Your task to perform on an android device: Open Youtube and go to the subscriptions tab Image 0: 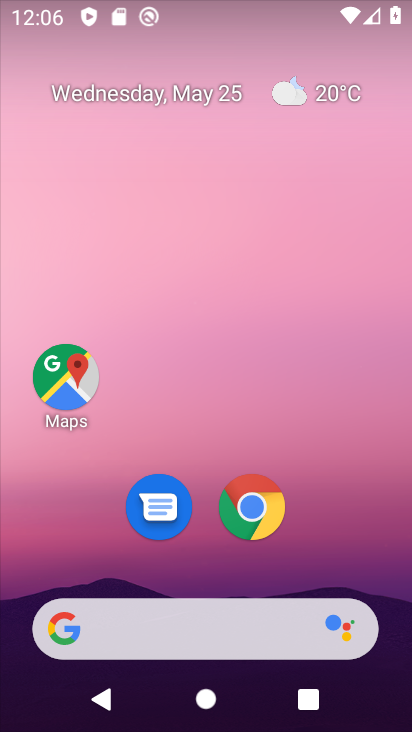
Step 0: drag from (363, 528) to (297, 122)
Your task to perform on an android device: Open Youtube and go to the subscriptions tab Image 1: 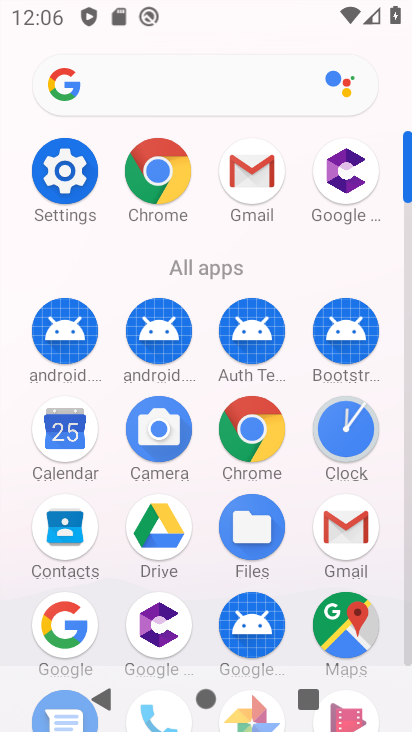
Step 1: drag from (184, 619) to (179, 284)
Your task to perform on an android device: Open Youtube and go to the subscriptions tab Image 2: 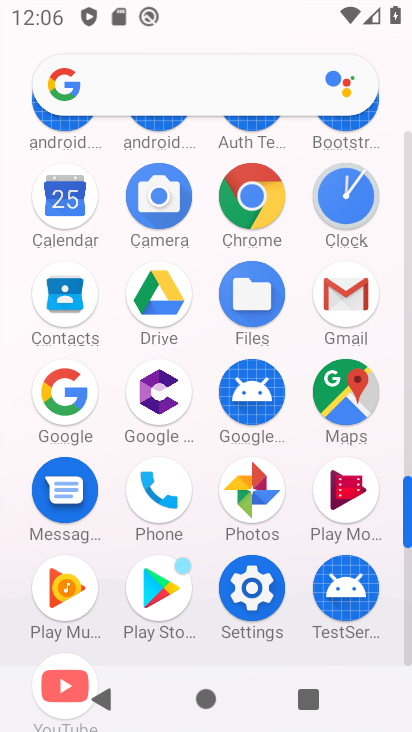
Step 2: drag from (136, 636) to (159, 306)
Your task to perform on an android device: Open Youtube and go to the subscriptions tab Image 3: 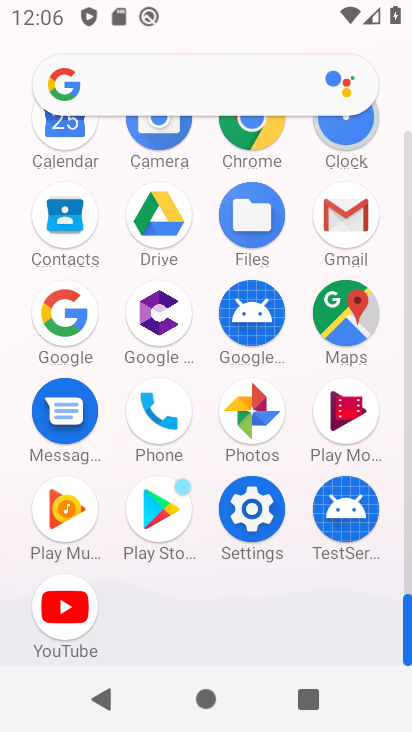
Step 3: click (78, 616)
Your task to perform on an android device: Open Youtube and go to the subscriptions tab Image 4: 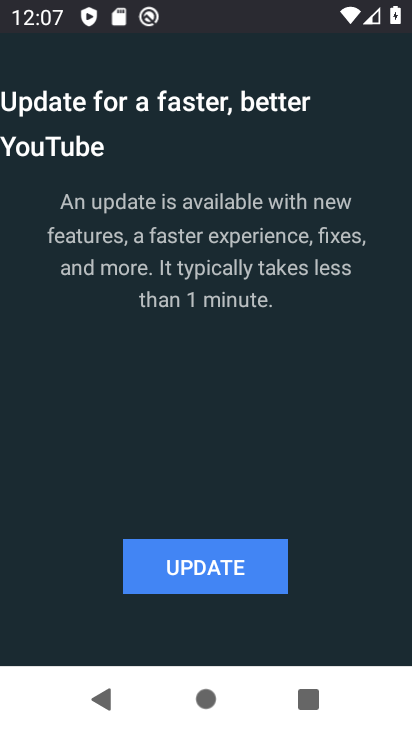
Step 4: click (252, 559)
Your task to perform on an android device: Open Youtube and go to the subscriptions tab Image 5: 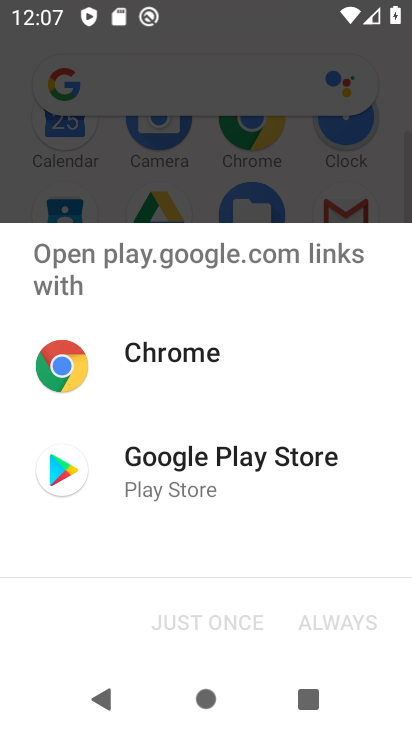
Step 5: click (193, 486)
Your task to perform on an android device: Open Youtube and go to the subscriptions tab Image 6: 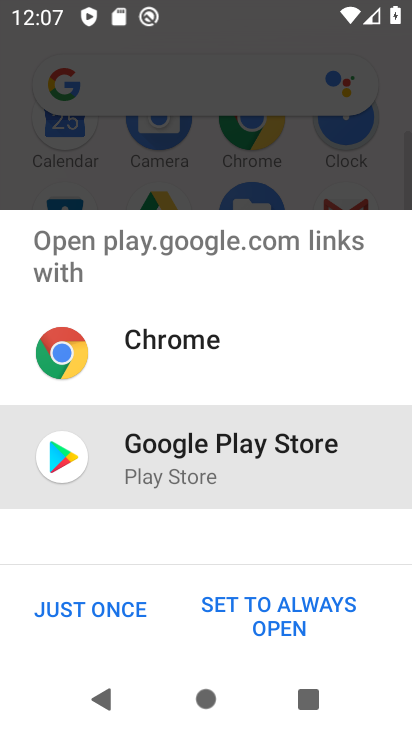
Step 6: click (115, 617)
Your task to perform on an android device: Open Youtube and go to the subscriptions tab Image 7: 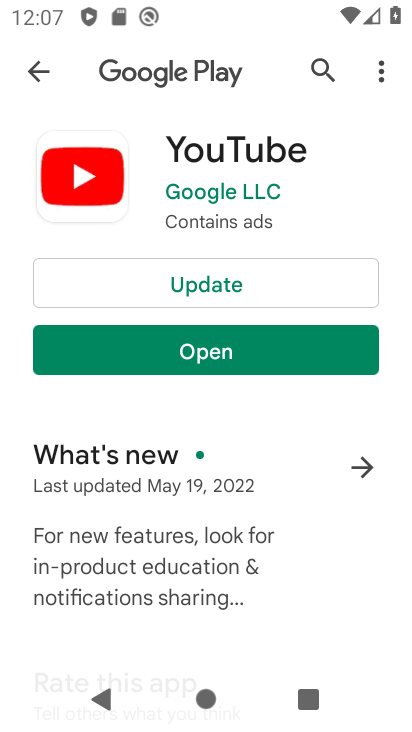
Step 7: click (203, 281)
Your task to perform on an android device: Open Youtube and go to the subscriptions tab Image 8: 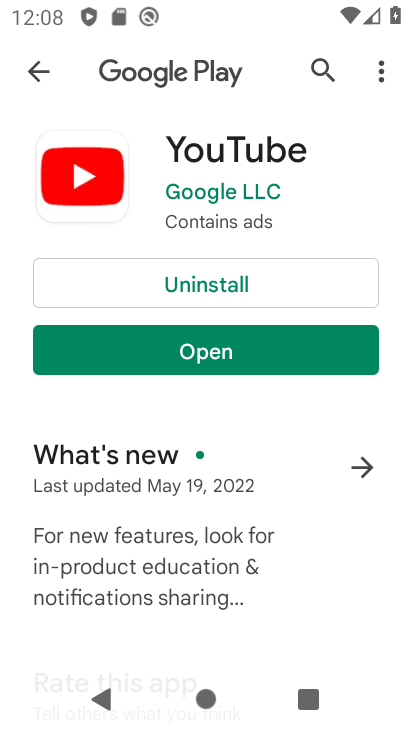
Step 8: click (244, 354)
Your task to perform on an android device: Open Youtube and go to the subscriptions tab Image 9: 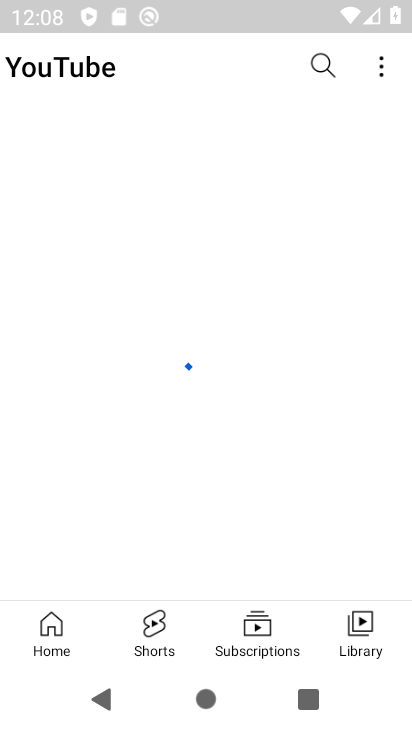
Step 9: click (264, 648)
Your task to perform on an android device: Open Youtube and go to the subscriptions tab Image 10: 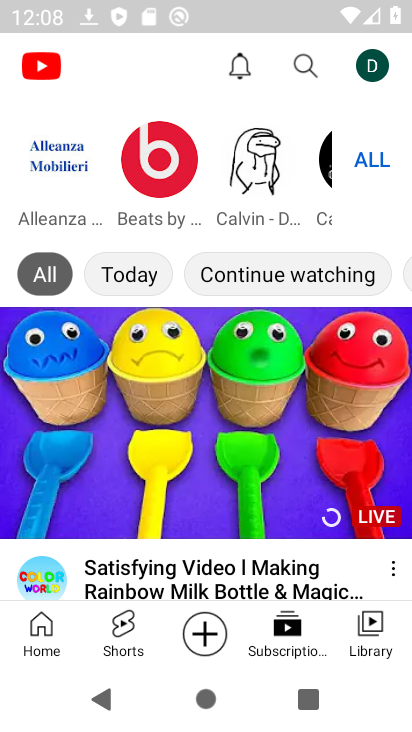
Step 10: task complete